Your task to perform on an android device: turn off sleep mode Image 0: 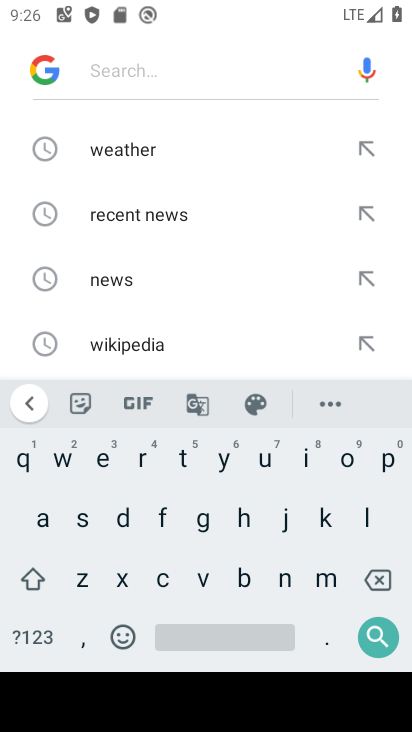
Step 0: press home button
Your task to perform on an android device: turn off sleep mode Image 1: 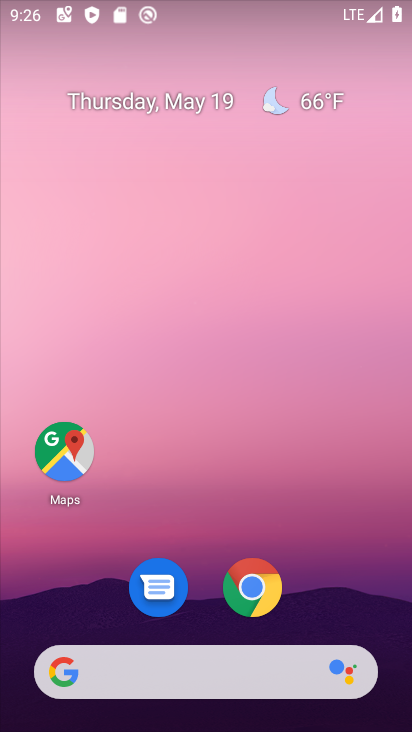
Step 1: drag from (254, 700) to (166, 209)
Your task to perform on an android device: turn off sleep mode Image 2: 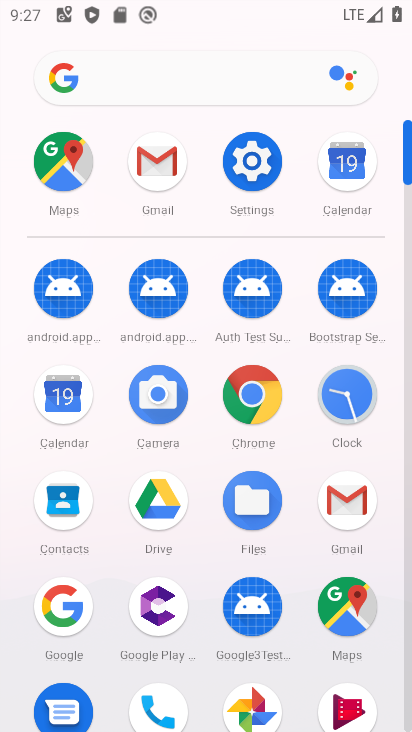
Step 2: click (234, 165)
Your task to perform on an android device: turn off sleep mode Image 3: 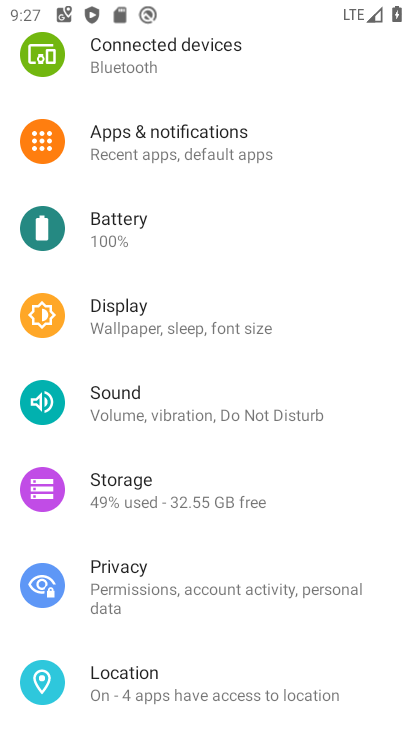
Step 3: drag from (150, 102) to (245, 425)
Your task to perform on an android device: turn off sleep mode Image 4: 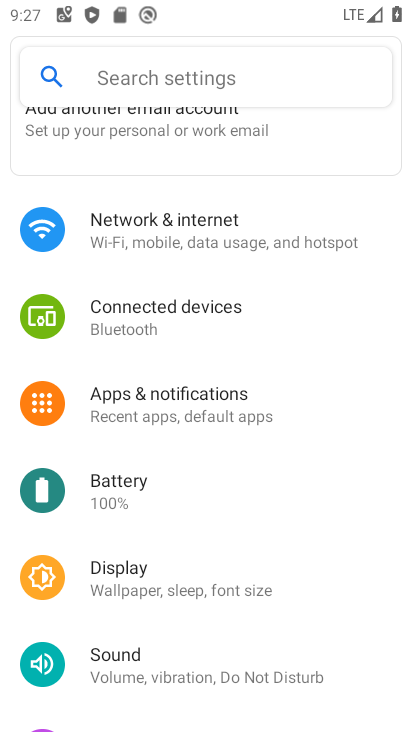
Step 4: click (127, 68)
Your task to perform on an android device: turn off sleep mode Image 5: 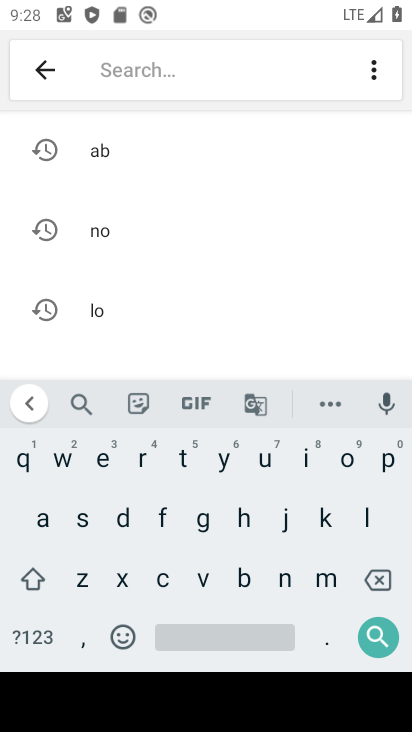
Step 5: click (76, 522)
Your task to perform on an android device: turn off sleep mode Image 6: 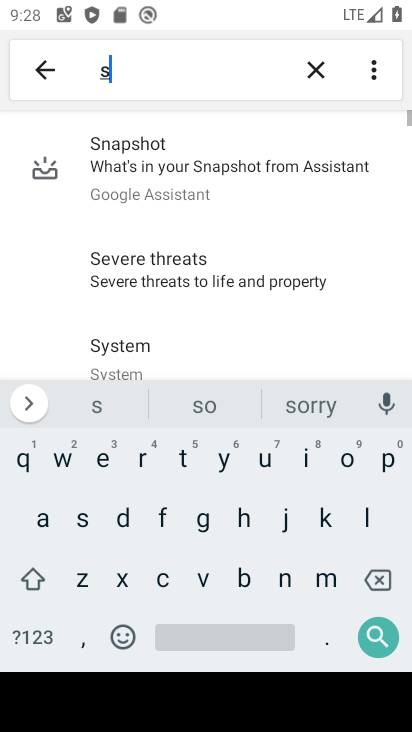
Step 6: click (362, 515)
Your task to perform on an android device: turn off sleep mode Image 7: 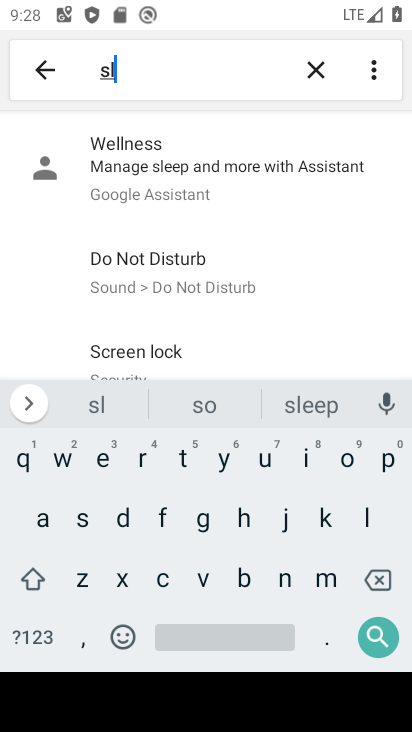
Step 7: click (176, 158)
Your task to perform on an android device: turn off sleep mode Image 8: 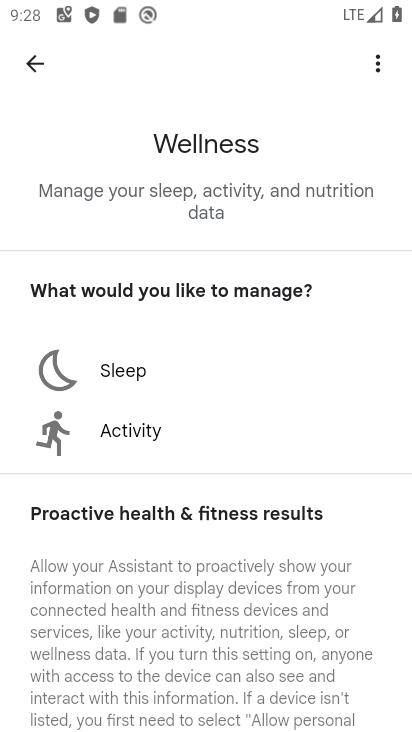
Step 8: click (154, 363)
Your task to perform on an android device: turn off sleep mode Image 9: 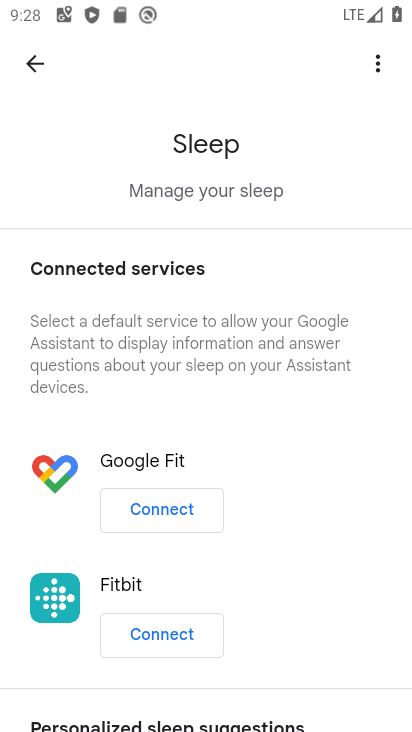
Step 9: task complete